Your task to perform on an android device: install app "Google Find My Device" Image 0: 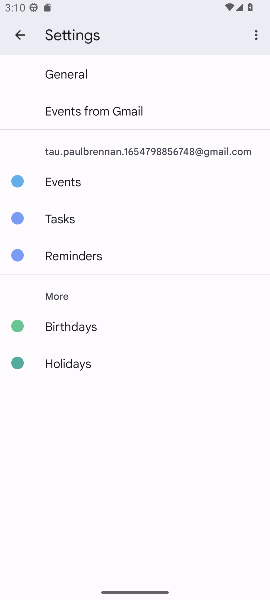
Step 0: press home button
Your task to perform on an android device: install app "Google Find My Device" Image 1: 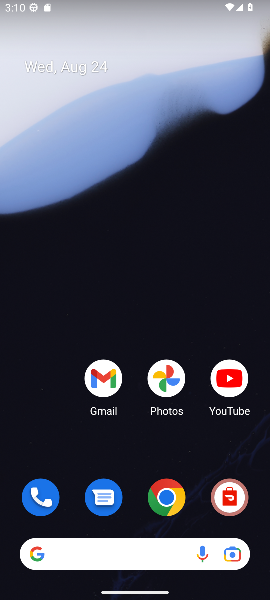
Step 1: drag from (145, 563) to (204, 90)
Your task to perform on an android device: install app "Google Find My Device" Image 2: 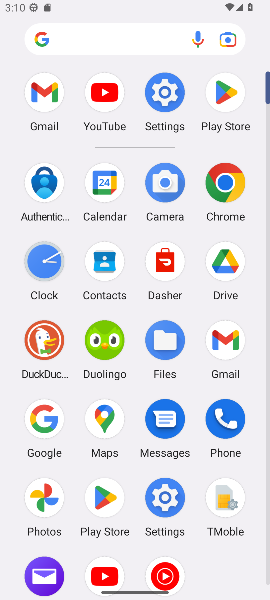
Step 2: click (223, 96)
Your task to perform on an android device: install app "Google Find My Device" Image 3: 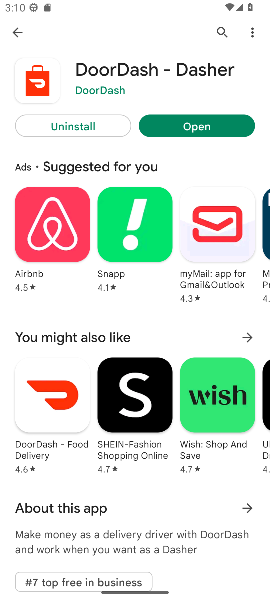
Step 3: press back button
Your task to perform on an android device: install app "Google Find My Device" Image 4: 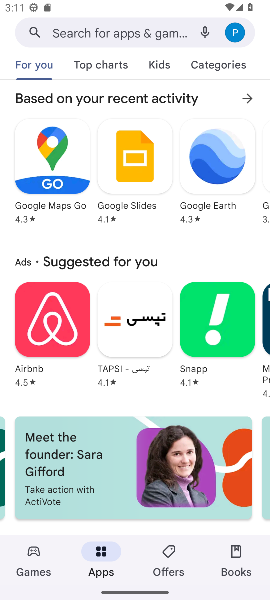
Step 4: click (158, 37)
Your task to perform on an android device: install app "Google Find My Device" Image 5: 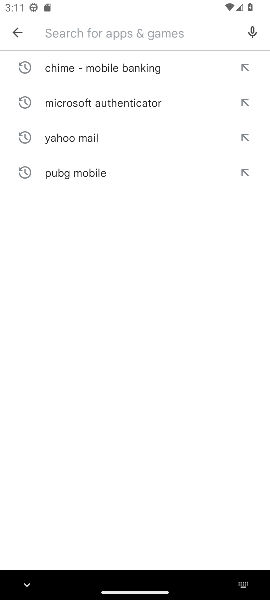
Step 5: type "Google Find My Device"
Your task to perform on an android device: install app "Google Find My Device" Image 6: 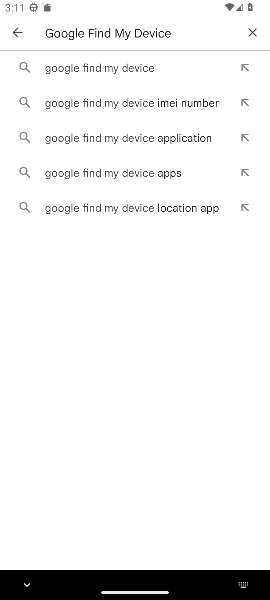
Step 6: click (114, 73)
Your task to perform on an android device: install app "Google Find My Device" Image 7: 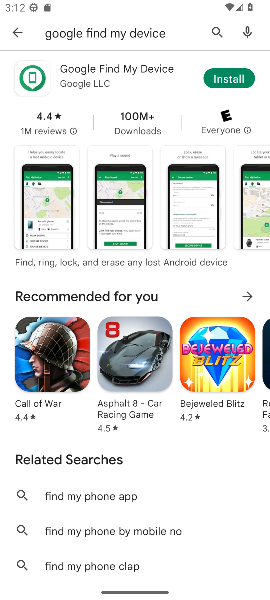
Step 7: click (232, 81)
Your task to perform on an android device: install app "Google Find My Device" Image 8: 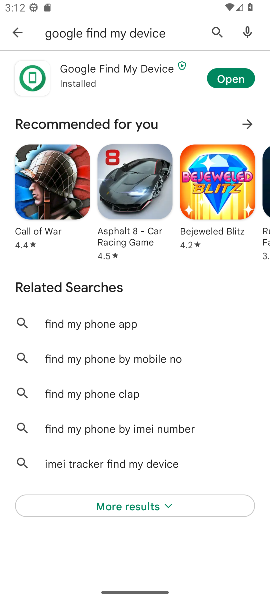
Step 8: task complete